Your task to perform on an android device: Do I have any events today? Image 0: 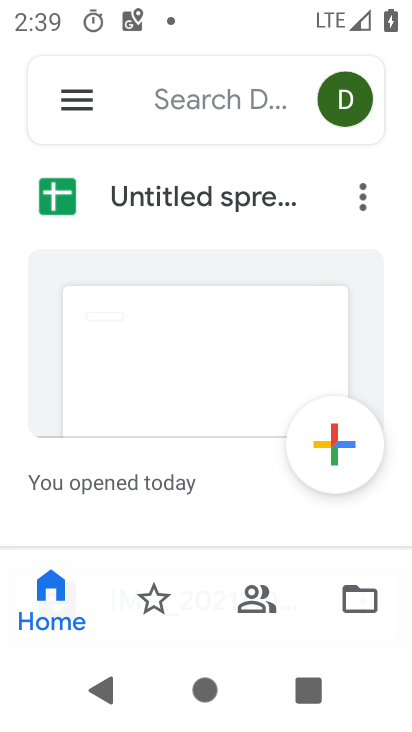
Step 0: press home button
Your task to perform on an android device: Do I have any events today? Image 1: 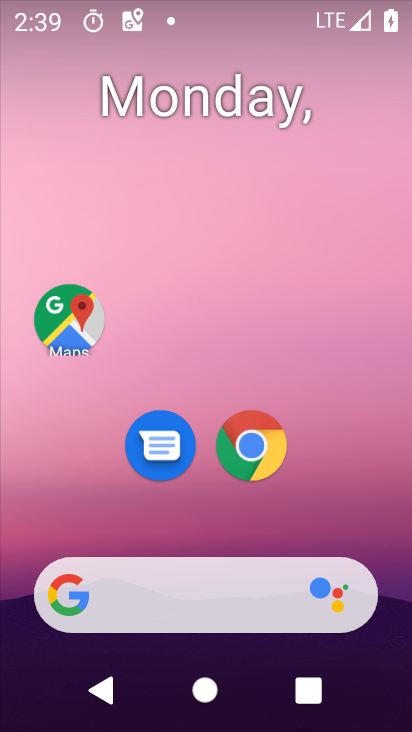
Step 1: drag from (217, 575) to (153, 74)
Your task to perform on an android device: Do I have any events today? Image 2: 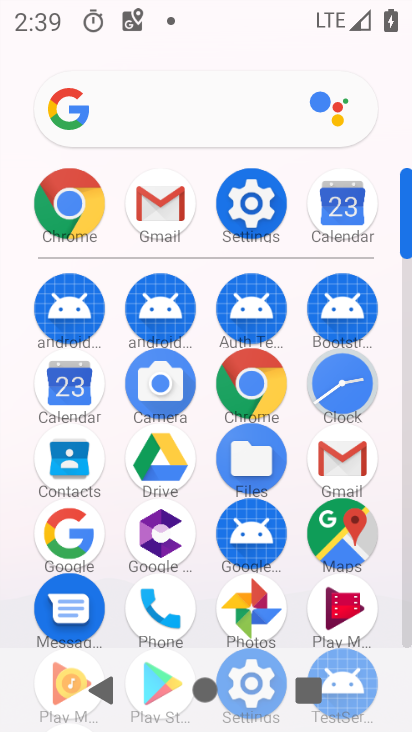
Step 2: click (231, 215)
Your task to perform on an android device: Do I have any events today? Image 3: 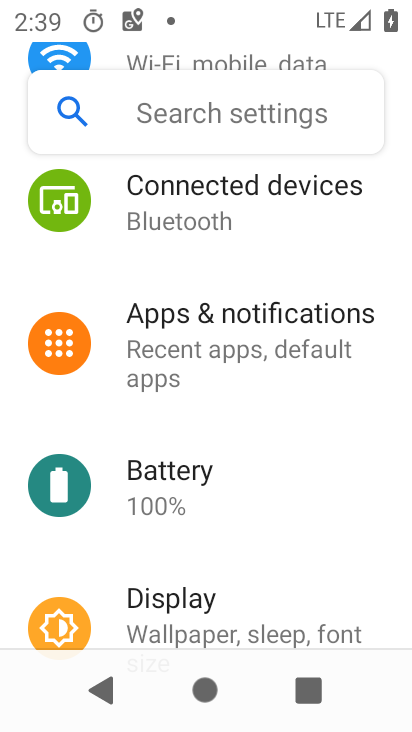
Step 3: press home button
Your task to perform on an android device: Do I have any events today? Image 4: 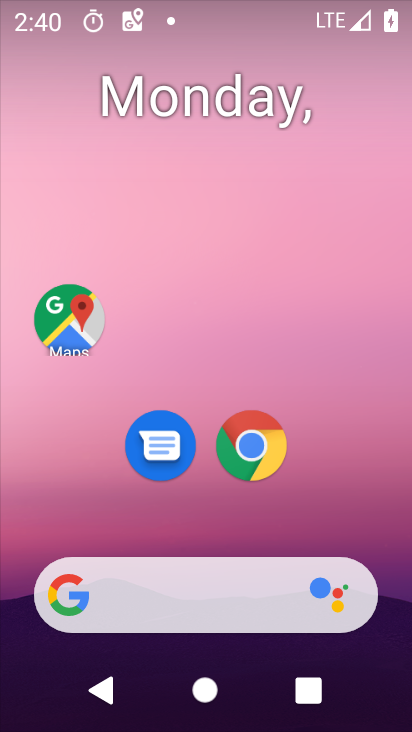
Step 4: drag from (182, 579) to (201, 150)
Your task to perform on an android device: Do I have any events today? Image 5: 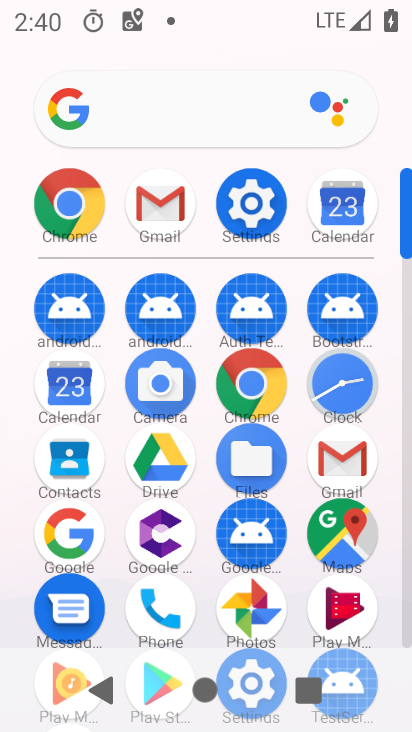
Step 5: click (79, 395)
Your task to perform on an android device: Do I have any events today? Image 6: 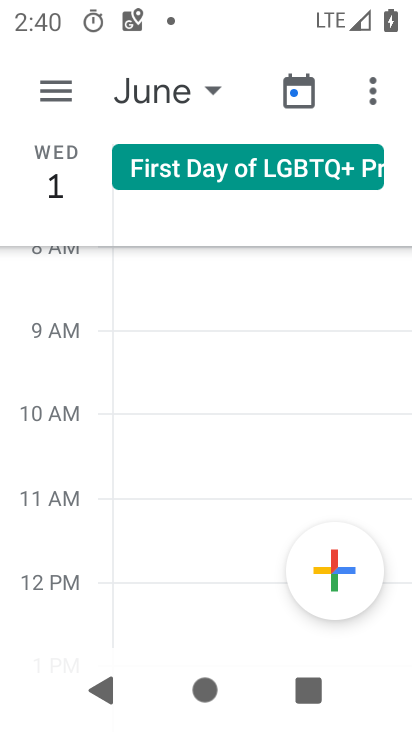
Step 6: click (53, 95)
Your task to perform on an android device: Do I have any events today? Image 7: 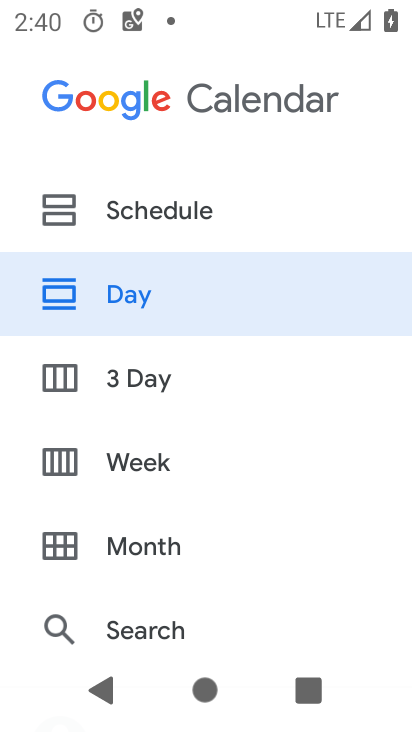
Step 7: click (144, 214)
Your task to perform on an android device: Do I have any events today? Image 8: 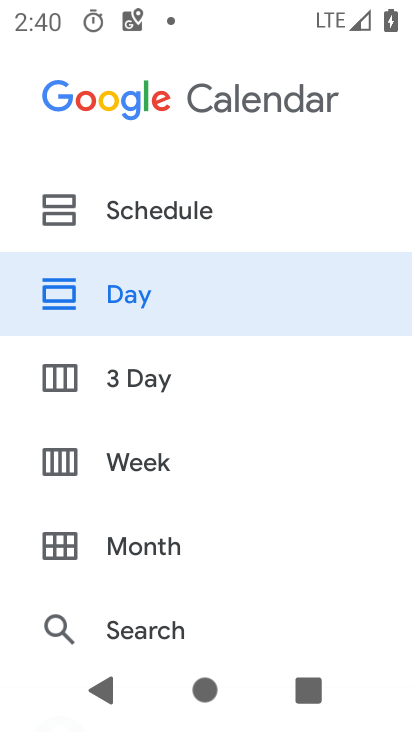
Step 8: click (149, 211)
Your task to perform on an android device: Do I have any events today? Image 9: 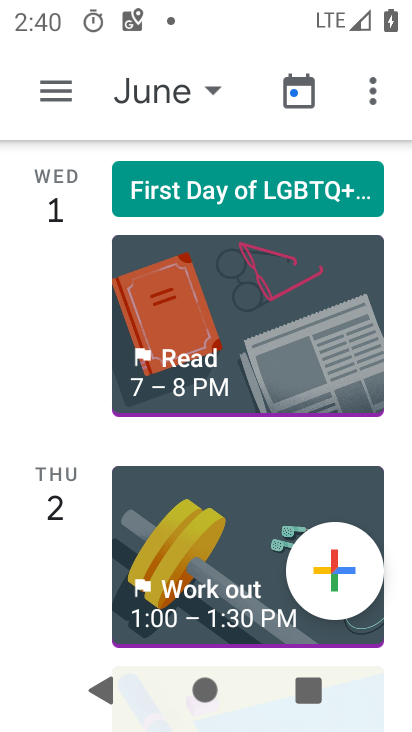
Step 9: click (182, 108)
Your task to perform on an android device: Do I have any events today? Image 10: 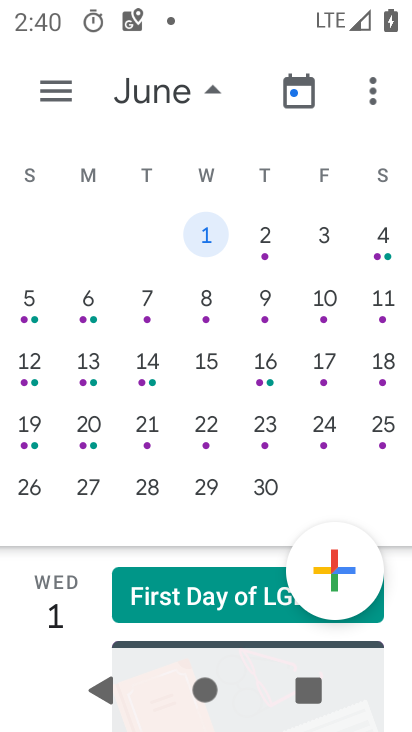
Step 10: drag from (93, 395) to (407, 396)
Your task to perform on an android device: Do I have any events today? Image 11: 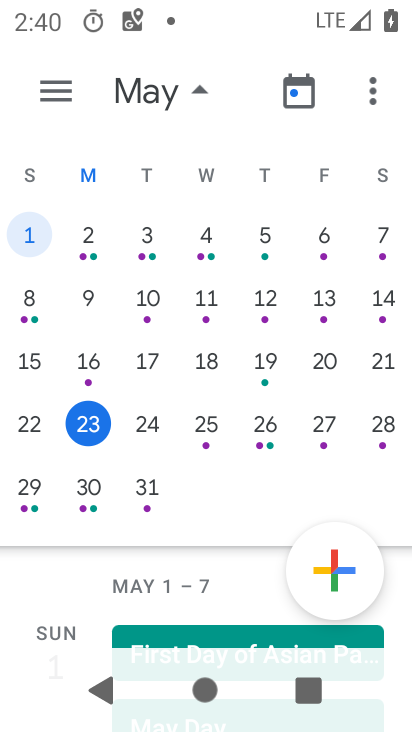
Step 11: click (82, 436)
Your task to perform on an android device: Do I have any events today? Image 12: 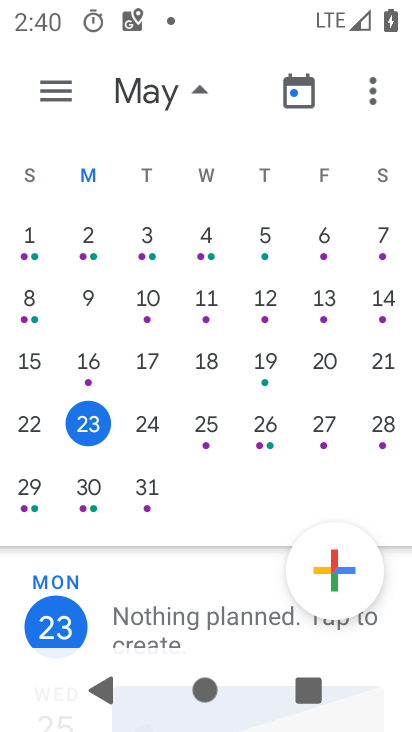
Step 12: click (197, 95)
Your task to perform on an android device: Do I have any events today? Image 13: 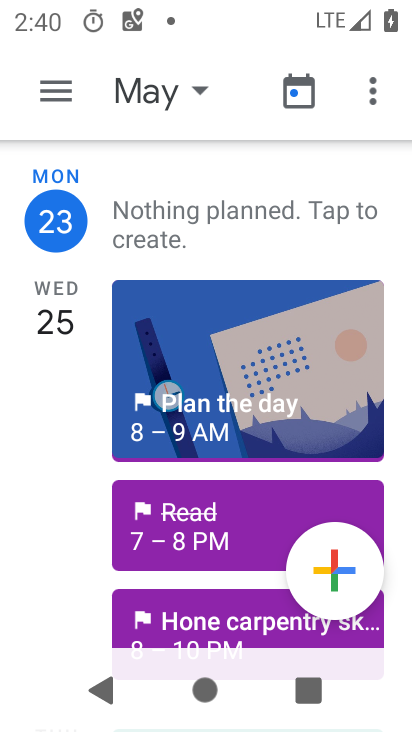
Step 13: task complete